Your task to perform on an android device: What's the weather? Image 0: 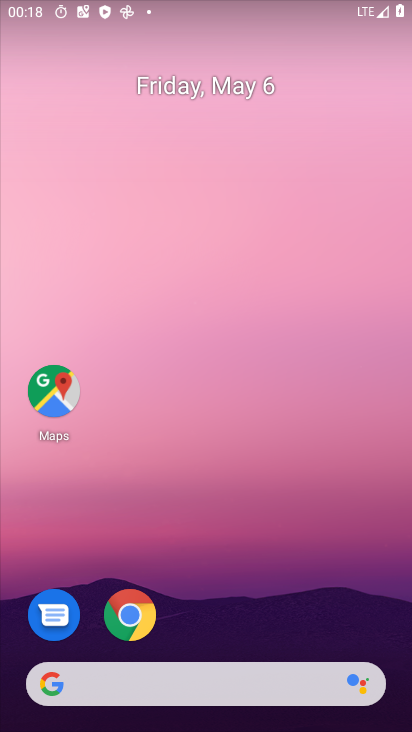
Step 0: drag from (248, 602) to (303, 46)
Your task to perform on an android device: What's the weather? Image 1: 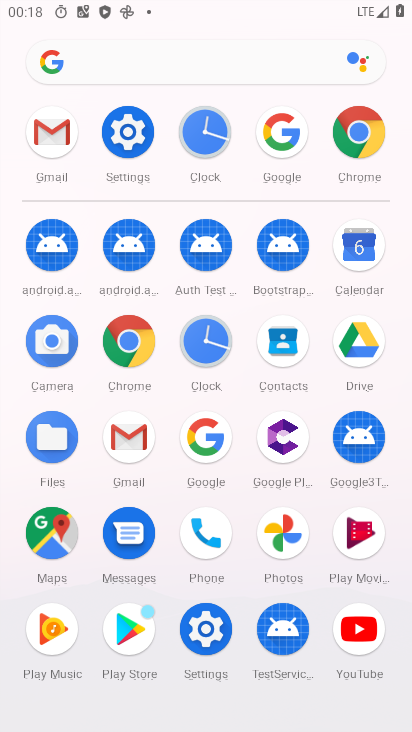
Step 1: click (204, 442)
Your task to perform on an android device: What's the weather? Image 2: 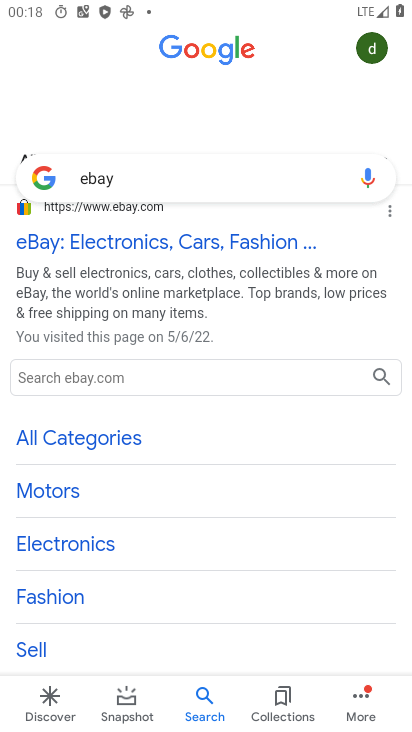
Step 2: click (285, 163)
Your task to perform on an android device: What's the weather? Image 3: 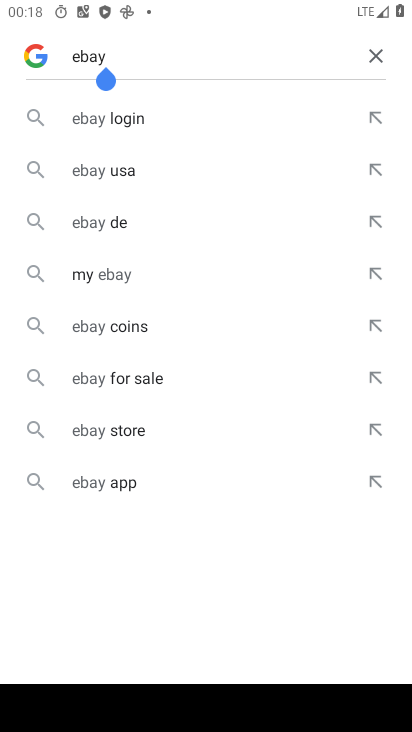
Step 3: press back button
Your task to perform on an android device: What's the weather? Image 4: 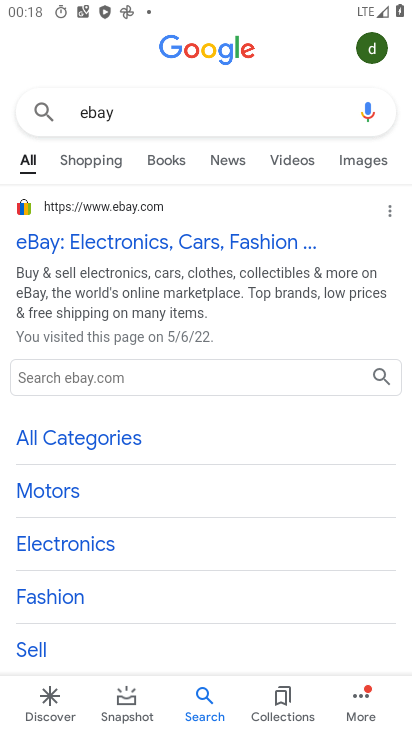
Step 4: click (144, 105)
Your task to perform on an android device: What's the weather? Image 5: 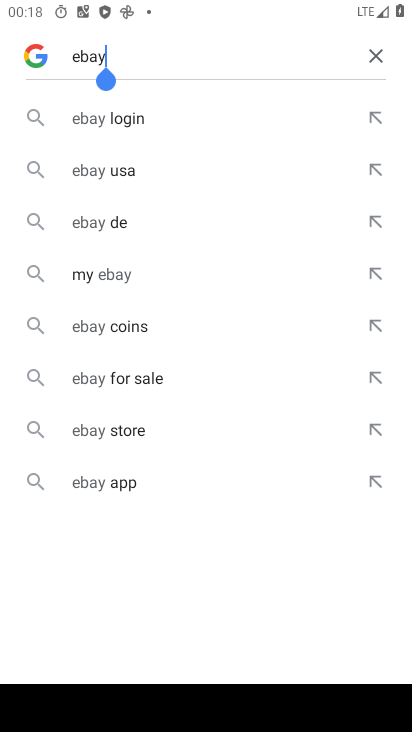
Step 5: click (364, 50)
Your task to perform on an android device: What's the weather? Image 6: 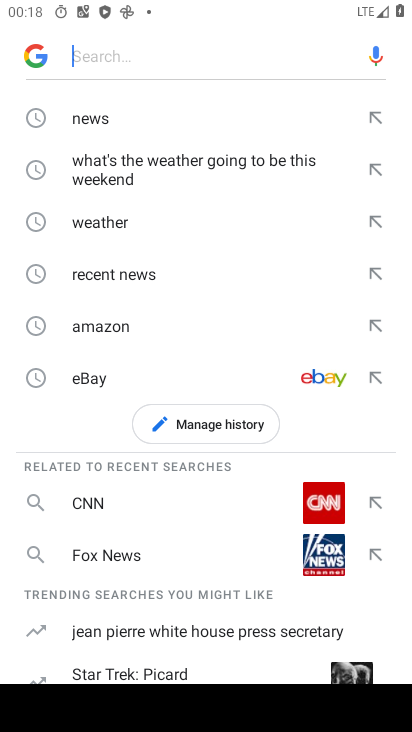
Step 6: click (114, 224)
Your task to perform on an android device: What's the weather? Image 7: 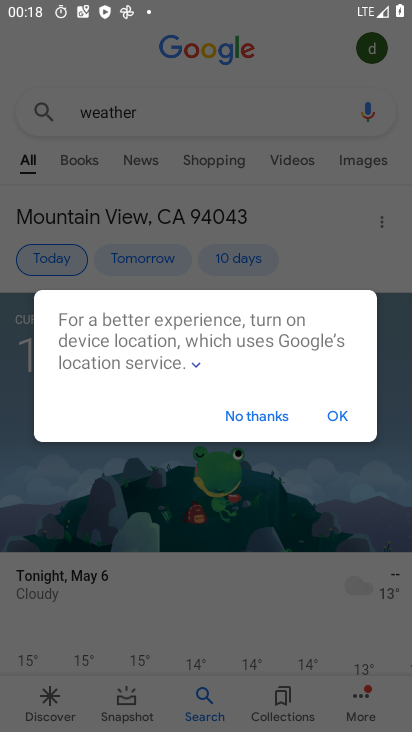
Step 7: click (249, 407)
Your task to perform on an android device: What's the weather? Image 8: 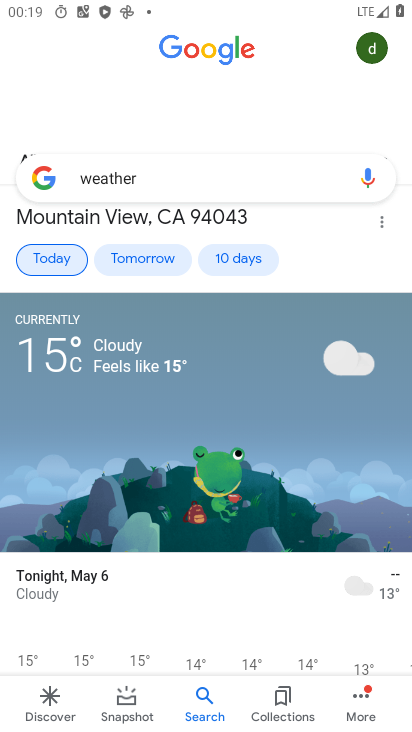
Step 8: task complete